Your task to perform on an android device: open sync settings in chrome Image 0: 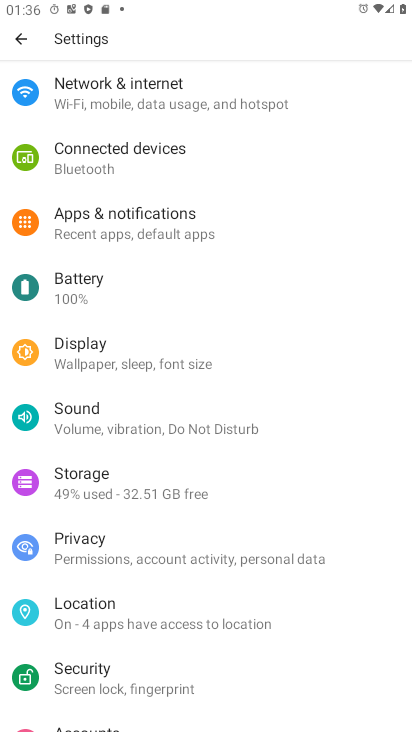
Step 0: press home button
Your task to perform on an android device: open sync settings in chrome Image 1: 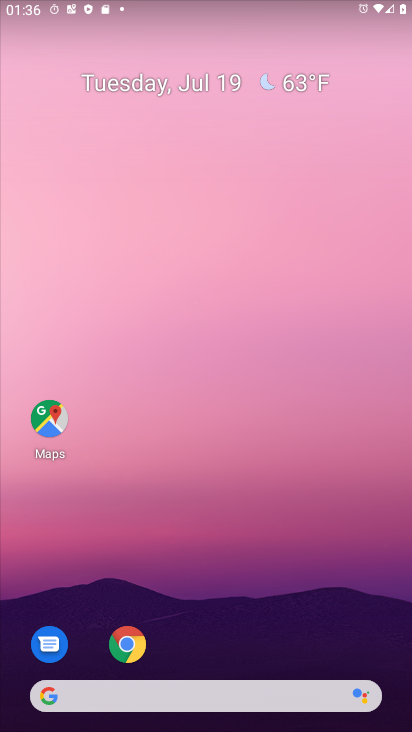
Step 1: click (131, 638)
Your task to perform on an android device: open sync settings in chrome Image 2: 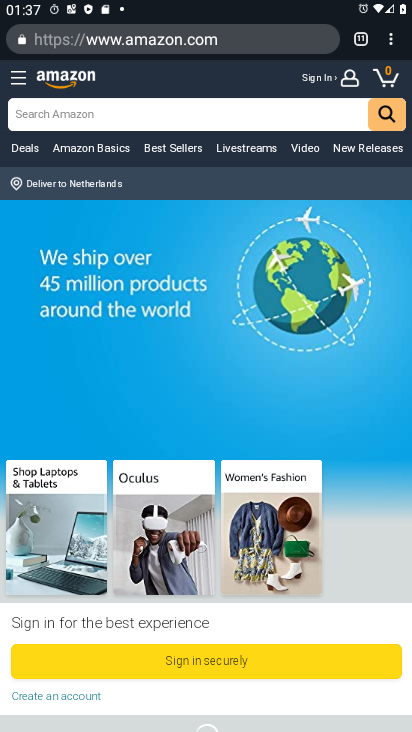
Step 2: click (392, 44)
Your task to perform on an android device: open sync settings in chrome Image 3: 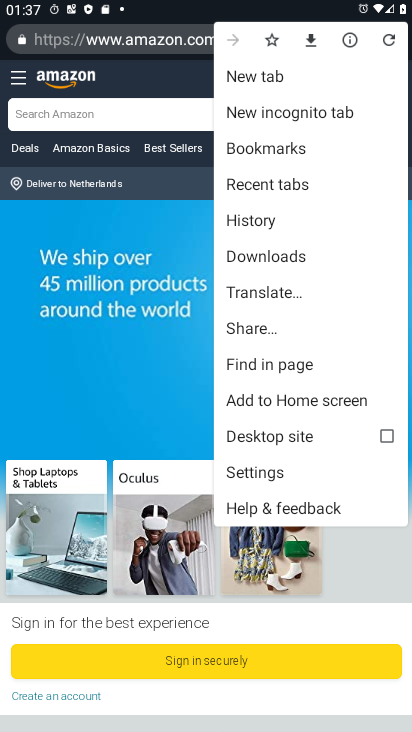
Step 3: click (245, 466)
Your task to perform on an android device: open sync settings in chrome Image 4: 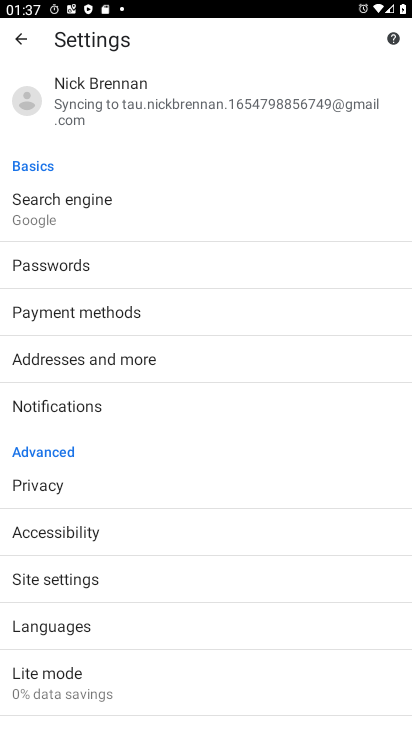
Step 4: click (29, 577)
Your task to perform on an android device: open sync settings in chrome Image 5: 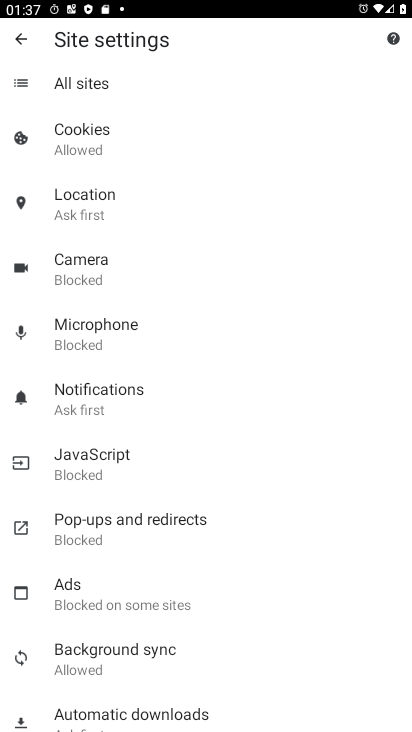
Step 5: click (81, 646)
Your task to perform on an android device: open sync settings in chrome Image 6: 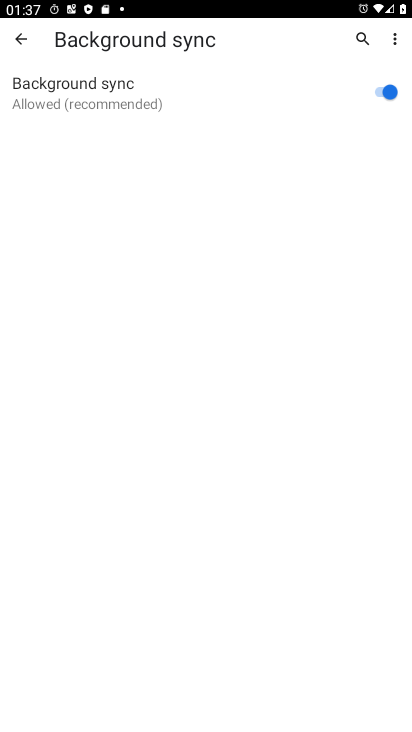
Step 6: task complete